Your task to perform on an android device: find snoozed emails in the gmail app Image 0: 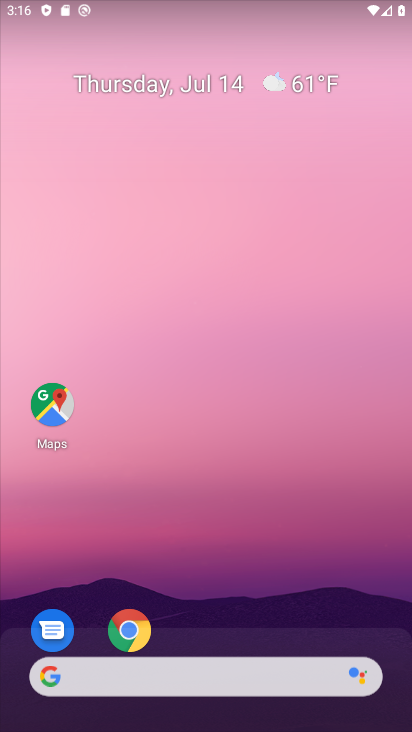
Step 0: drag from (225, 684) to (258, 144)
Your task to perform on an android device: find snoozed emails in the gmail app Image 1: 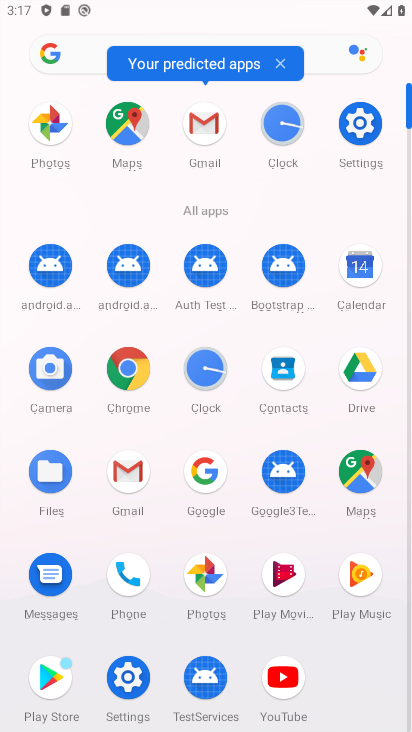
Step 1: click (123, 486)
Your task to perform on an android device: find snoozed emails in the gmail app Image 2: 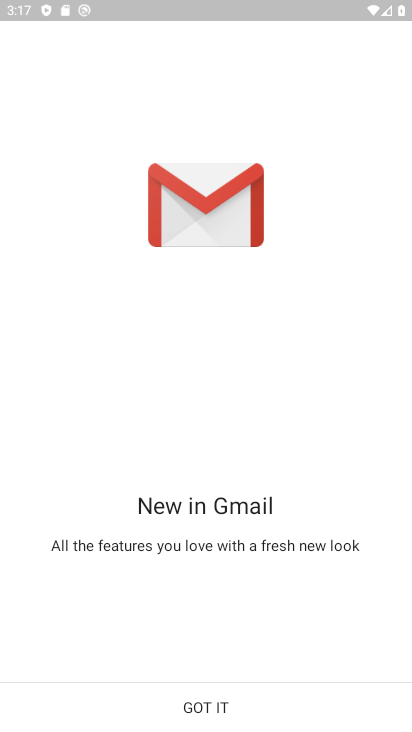
Step 2: click (184, 701)
Your task to perform on an android device: find snoozed emails in the gmail app Image 3: 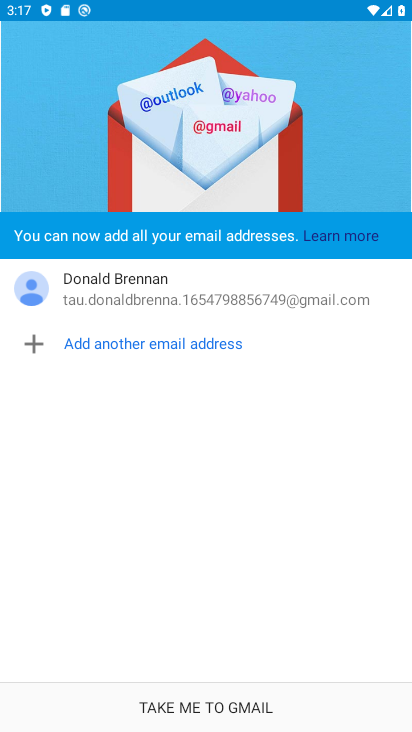
Step 3: click (184, 701)
Your task to perform on an android device: find snoozed emails in the gmail app Image 4: 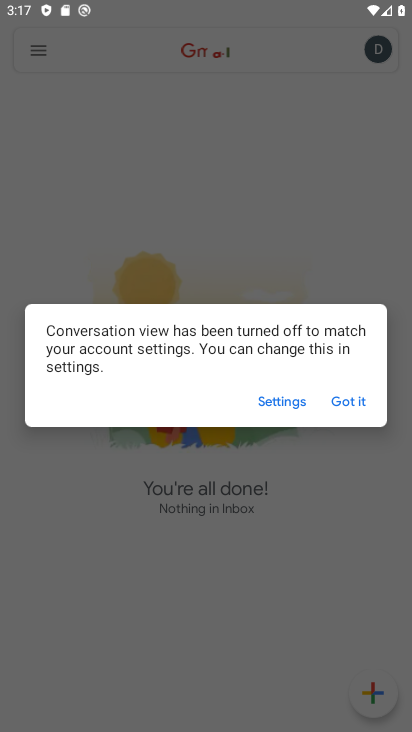
Step 4: click (358, 411)
Your task to perform on an android device: find snoozed emails in the gmail app Image 5: 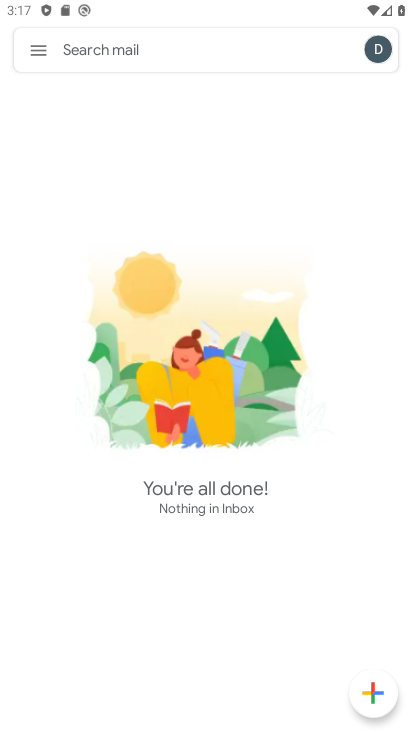
Step 5: click (38, 44)
Your task to perform on an android device: find snoozed emails in the gmail app Image 6: 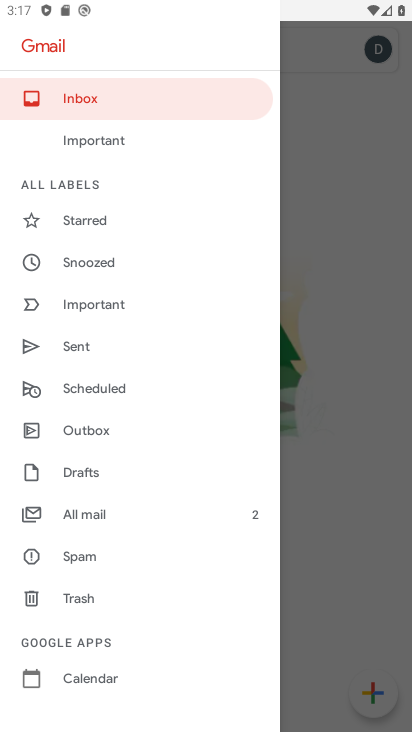
Step 6: click (100, 268)
Your task to perform on an android device: find snoozed emails in the gmail app Image 7: 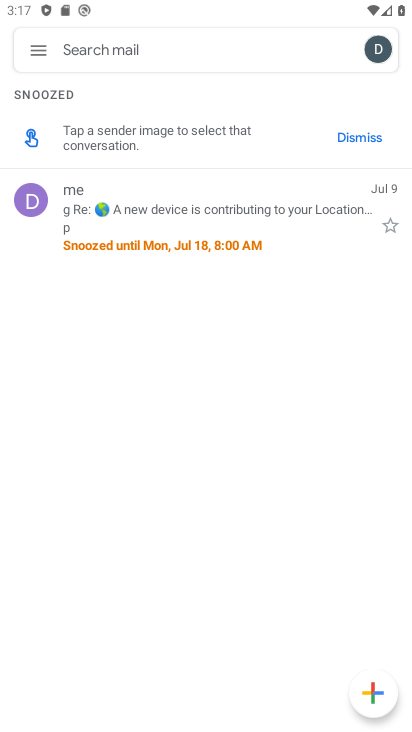
Step 7: task complete